Your task to perform on an android device: What is the news today? Image 0: 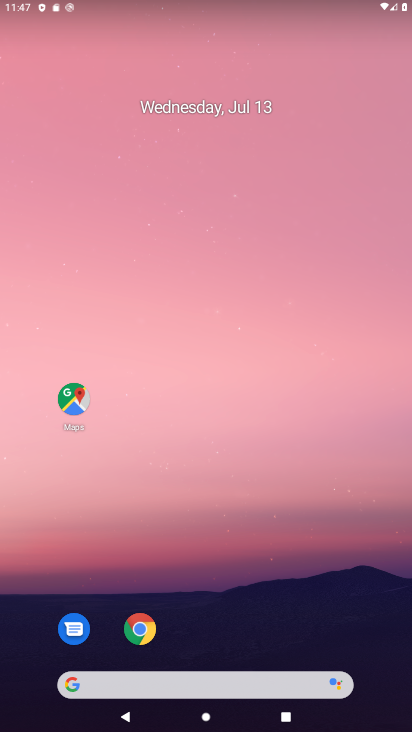
Step 0: drag from (30, 307) to (278, 340)
Your task to perform on an android device: What is the news today? Image 1: 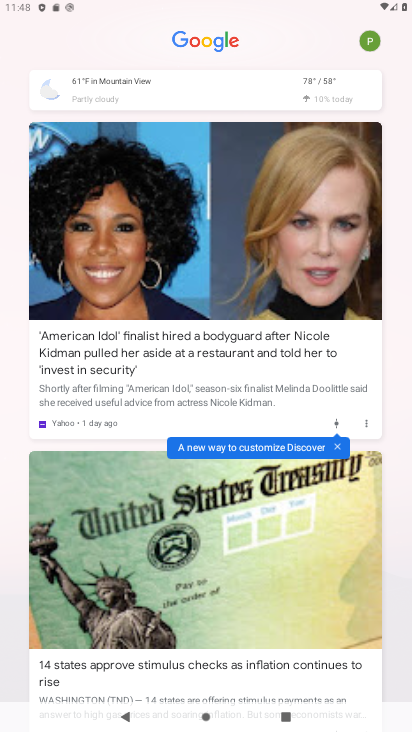
Step 1: task complete